Your task to perform on an android device: Go to CNN.com Image 0: 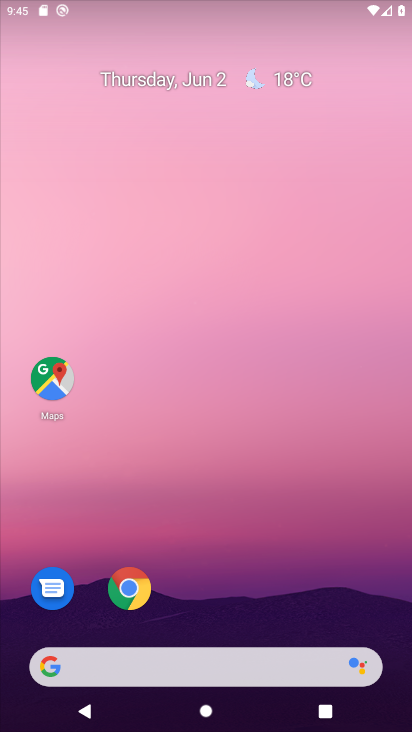
Step 0: drag from (280, 668) to (216, 16)
Your task to perform on an android device: Go to CNN.com Image 1: 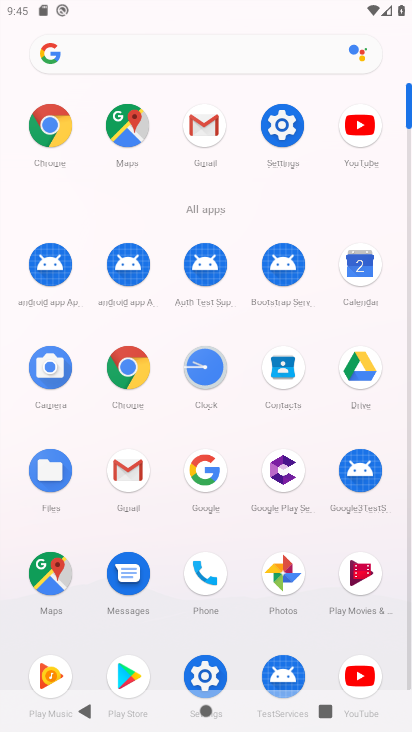
Step 1: click (59, 127)
Your task to perform on an android device: Go to CNN.com Image 2: 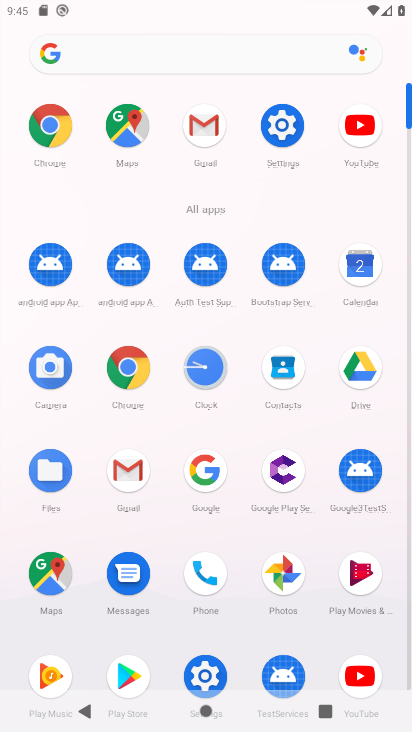
Step 2: click (59, 127)
Your task to perform on an android device: Go to CNN.com Image 3: 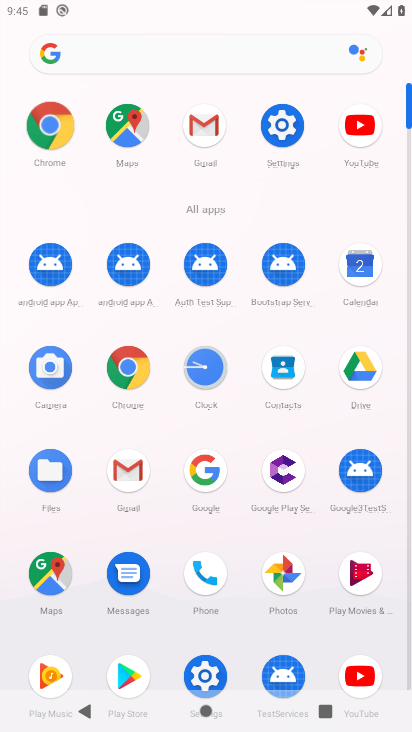
Step 3: click (52, 131)
Your task to perform on an android device: Go to CNN.com Image 4: 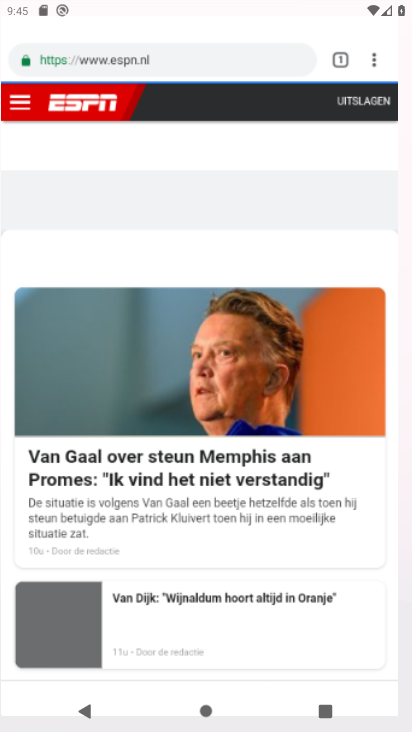
Step 4: click (52, 131)
Your task to perform on an android device: Go to CNN.com Image 5: 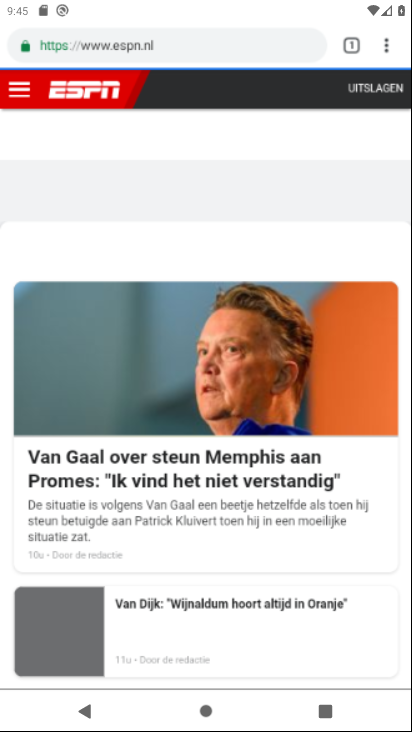
Step 5: click (61, 132)
Your task to perform on an android device: Go to CNN.com Image 6: 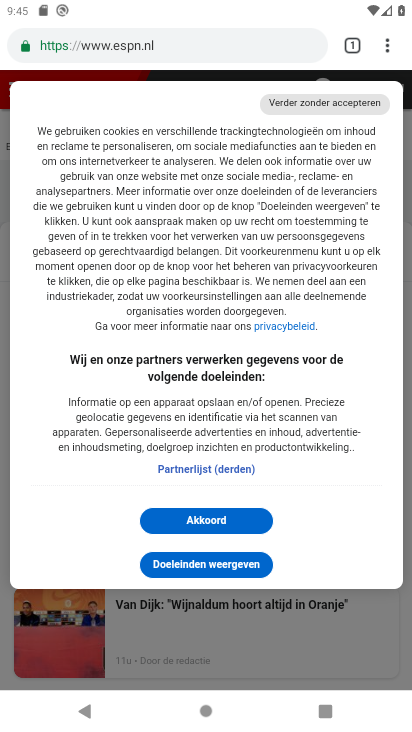
Step 6: press back button
Your task to perform on an android device: Go to CNN.com Image 7: 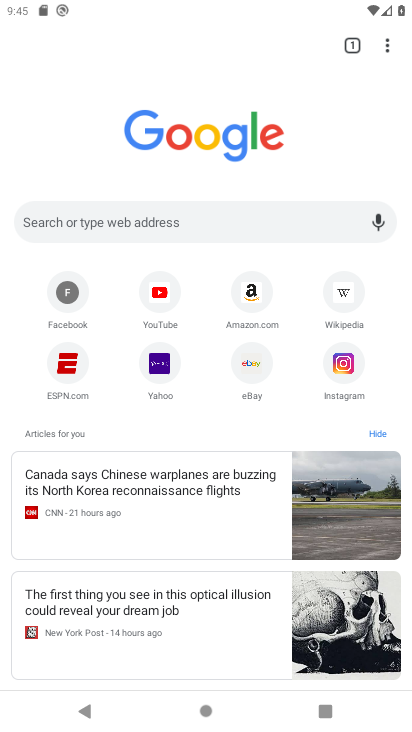
Step 7: click (49, 220)
Your task to perform on an android device: Go to CNN.com Image 8: 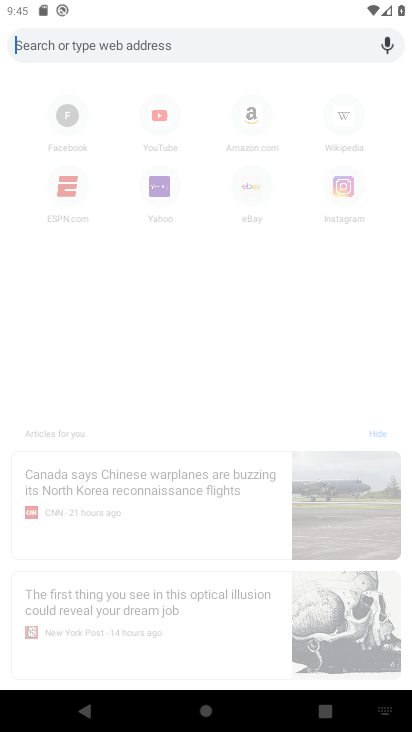
Step 8: type "cnn.com"
Your task to perform on an android device: Go to CNN.com Image 9: 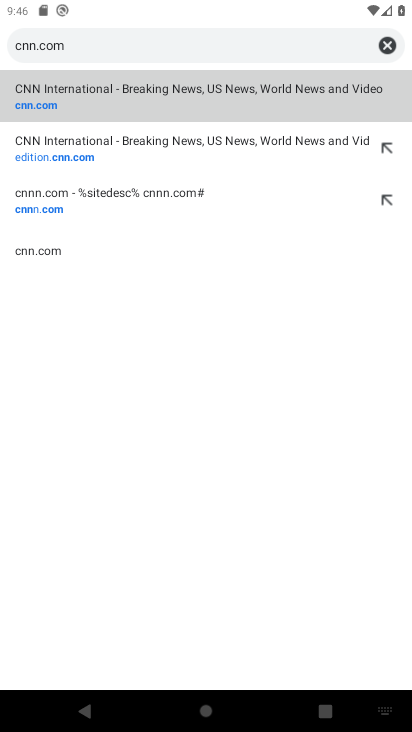
Step 9: click (65, 104)
Your task to perform on an android device: Go to CNN.com Image 10: 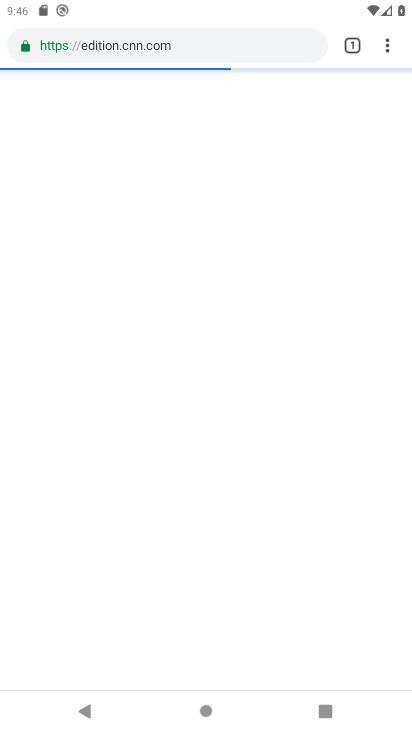
Step 10: task complete